Your task to perform on an android device: What's on my calendar tomorrow? Image 0: 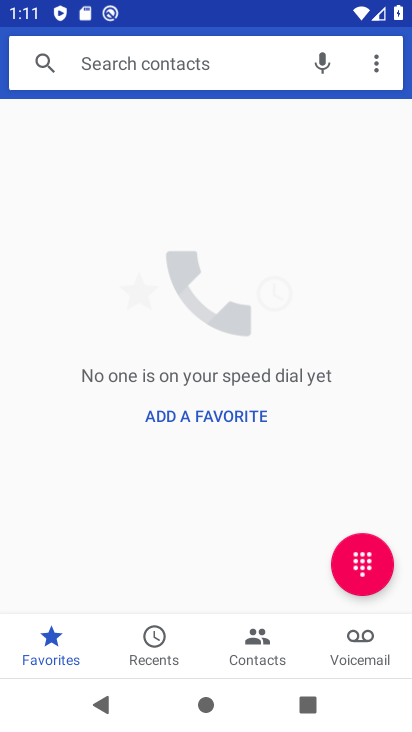
Step 0: press back button
Your task to perform on an android device: What's on my calendar tomorrow? Image 1: 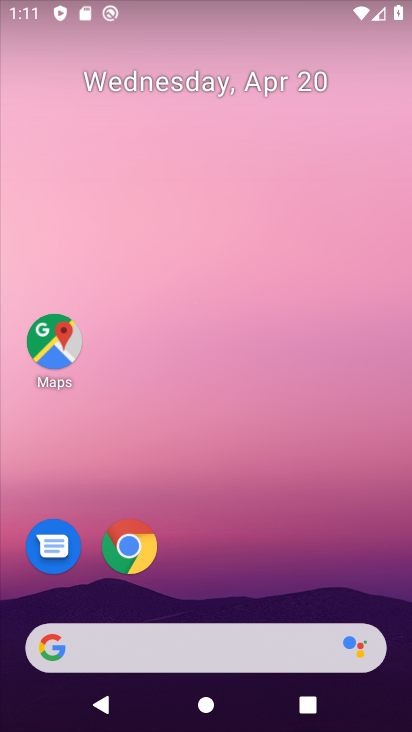
Step 1: drag from (234, 473) to (368, 34)
Your task to perform on an android device: What's on my calendar tomorrow? Image 2: 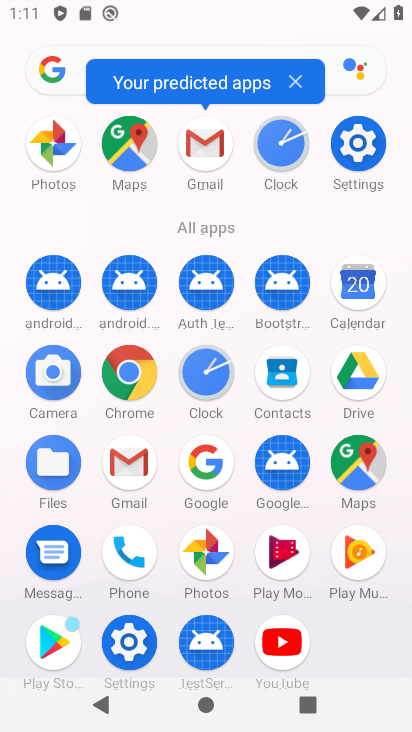
Step 2: click (368, 287)
Your task to perform on an android device: What's on my calendar tomorrow? Image 3: 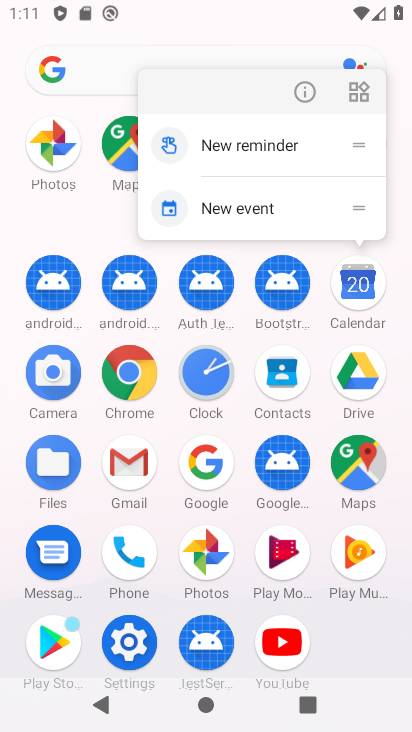
Step 3: click (361, 297)
Your task to perform on an android device: What's on my calendar tomorrow? Image 4: 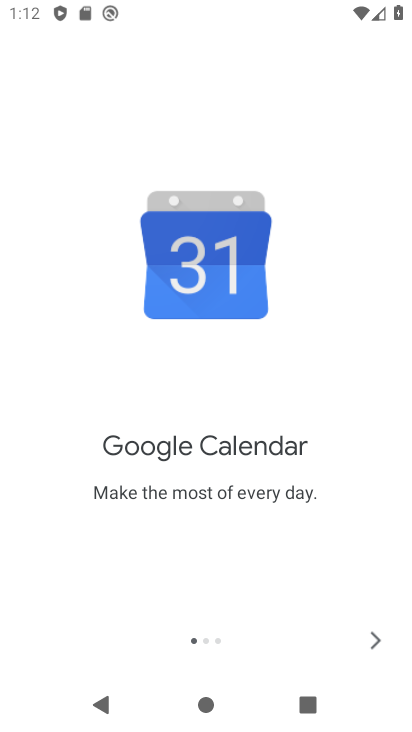
Step 4: click (400, 636)
Your task to perform on an android device: What's on my calendar tomorrow? Image 5: 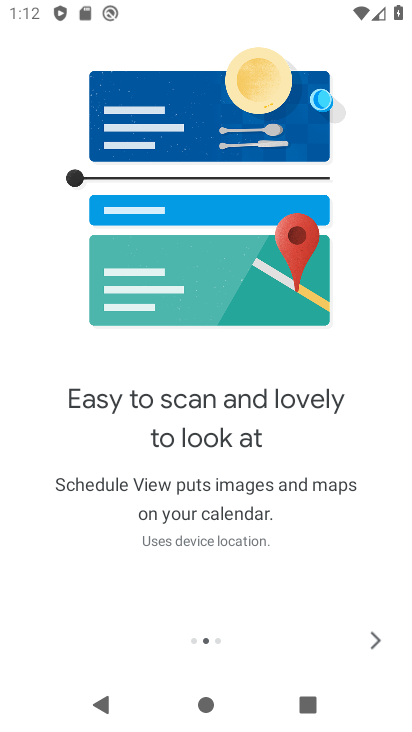
Step 5: click (383, 651)
Your task to perform on an android device: What's on my calendar tomorrow? Image 6: 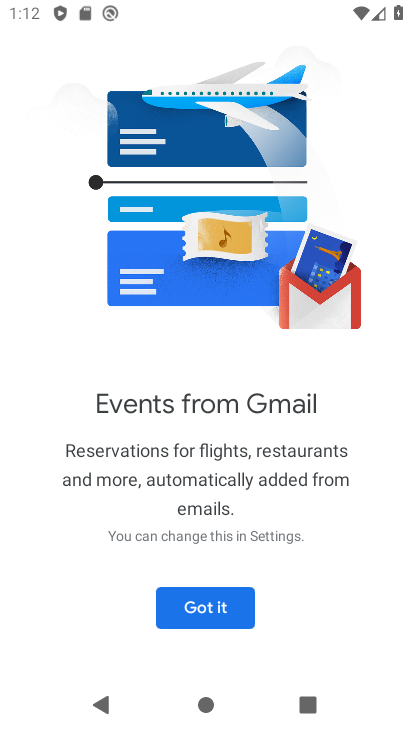
Step 6: click (216, 609)
Your task to perform on an android device: What's on my calendar tomorrow? Image 7: 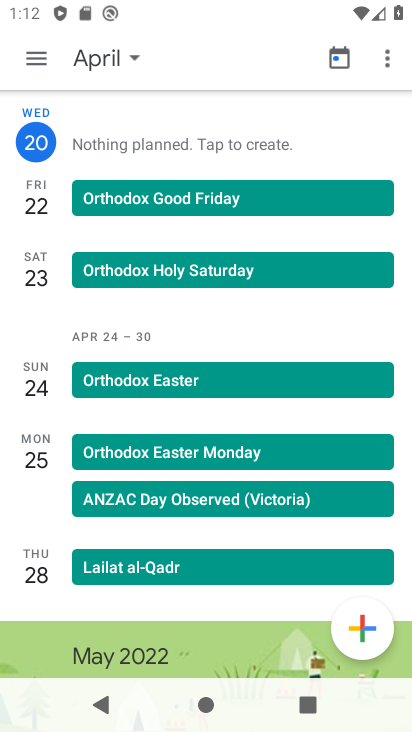
Step 7: click (92, 58)
Your task to perform on an android device: What's on my calendar tomorrow? Image 8: 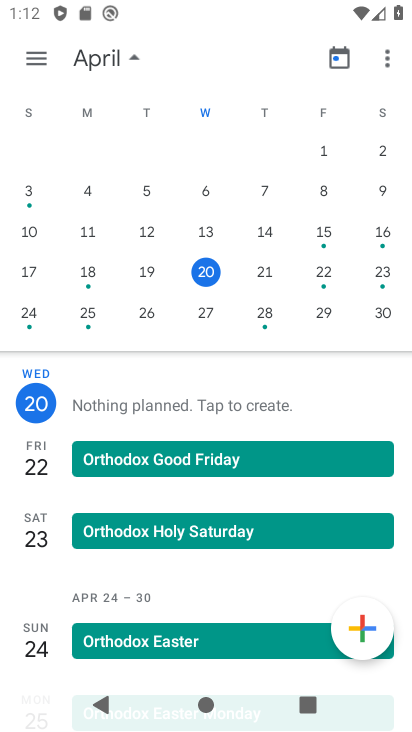
Step 8: click (261, 267)
Your task to perform on an android device: What's on my calendar tomorrow? Image 9: 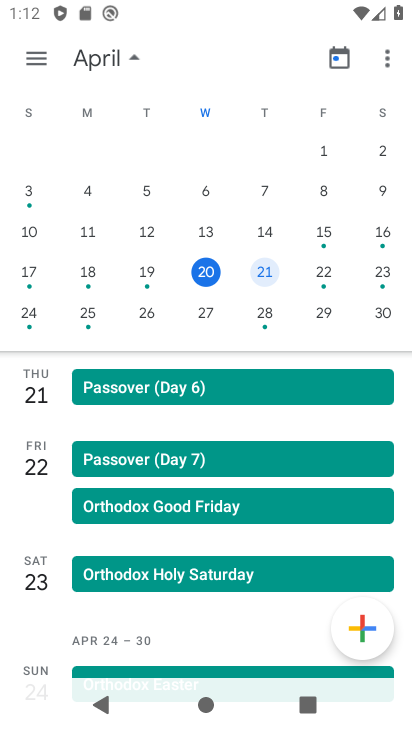
Step 9: task complete